Your task to perform on an android device: turn off notifications settings in the gmail app Image 0: 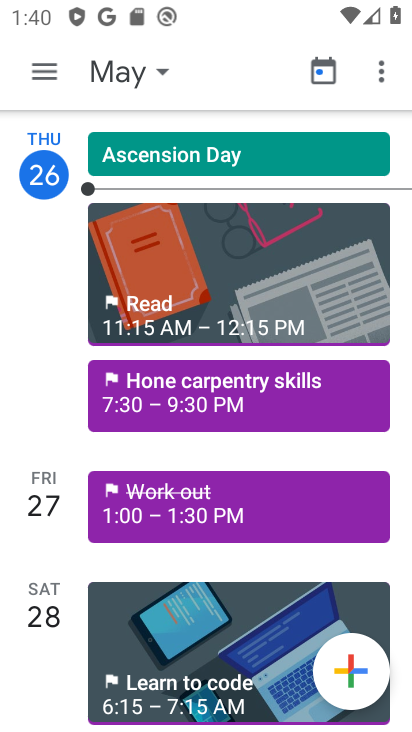
Step 0: press home button
Your task to perform on an android device: turn off notifications settings in the gmail app Image 1: 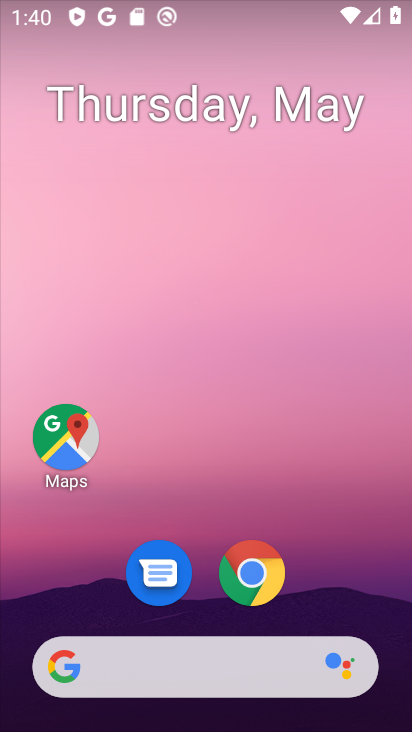
Step 1: drag from (328, 586) to (358, 351)
Your task to perform on an android device: turn off notifications settings in the gmail app Image 2: 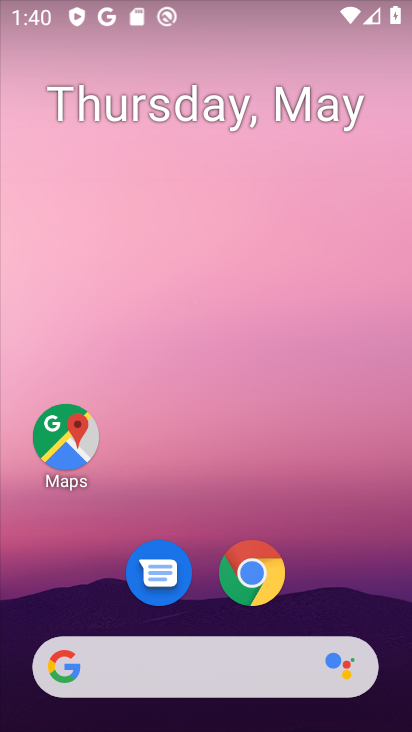
Step 2: drag from (351, 497) to (335, 162)
Your task to perform on an android device: turn off notifications settings in the gmail app Image 3: 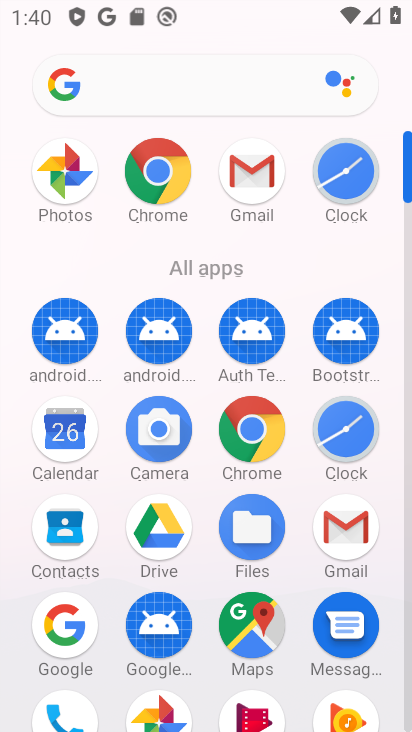
Step 3: click (263, 168)
Your task to perform on an android device: turn off notifications settings in the gmail app Image 4: 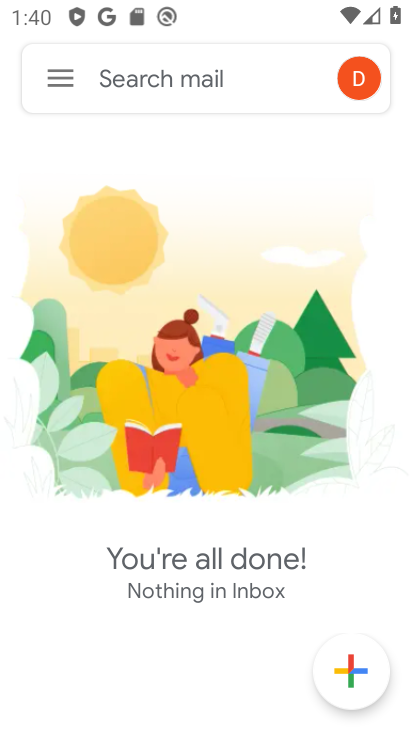
Step 4: click (68, 75)
Your task to perform on an android device: turn off notifications settings in the gmail app Image 5: 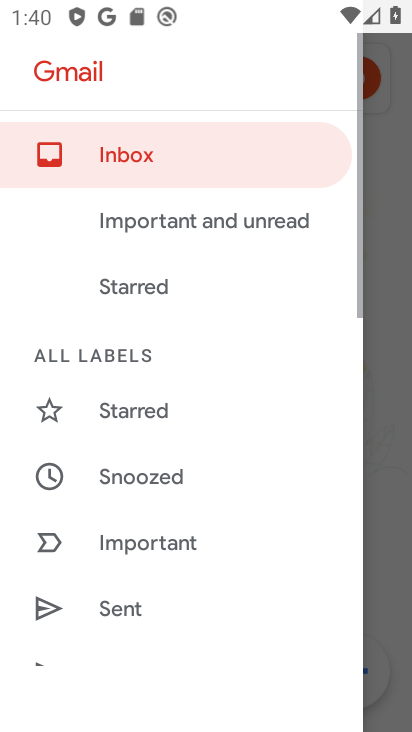
Step 5: drag from (143, 598) to (192, 237)
Your task to perform on an android device: turn off notifications settings in the gmail app Image 6: 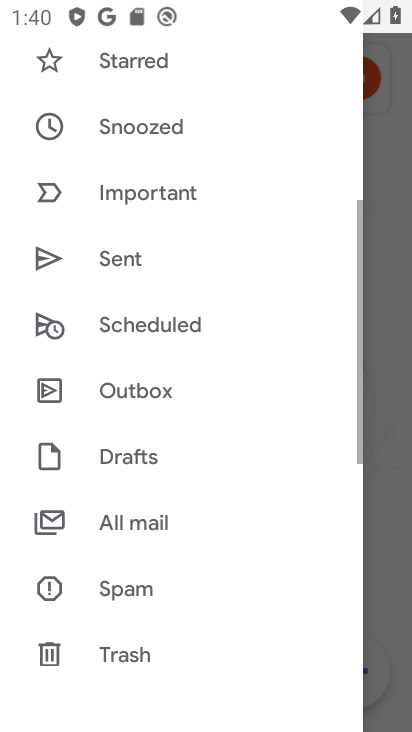
Step 6: drag from (244, 648) to (235, 340)
Your task to perform on an android device: turn off notifications settings in the gmail app Image 7: 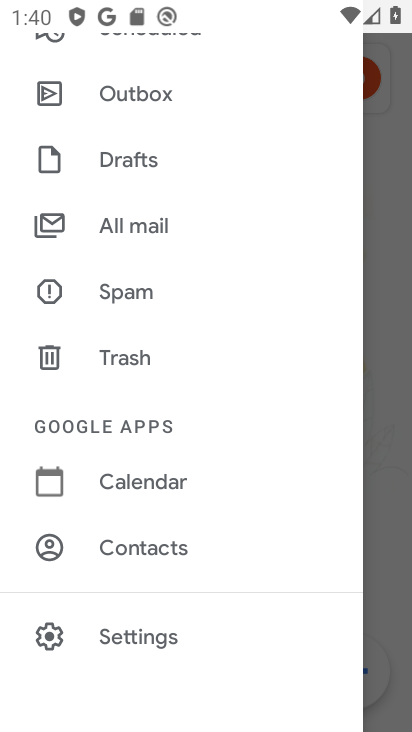
Step 7: click (182, 613)
Your task to perform on an android device: turn off notifications settings in the gmail app Image 8: 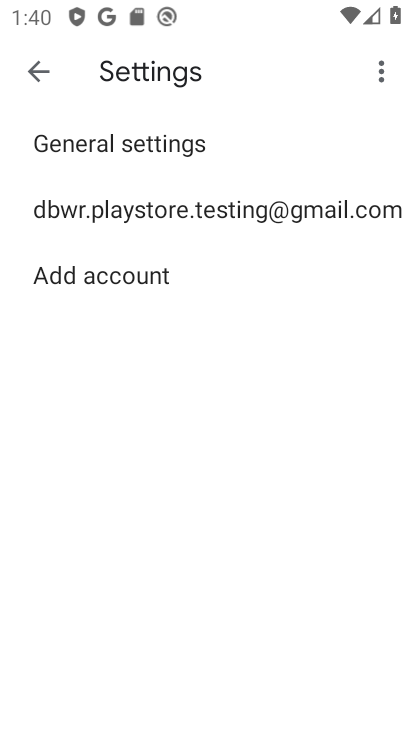
Step 8: click (173, 219)
Your task to perform on an android device: turn off notifications settings in the gmail app Image 9: 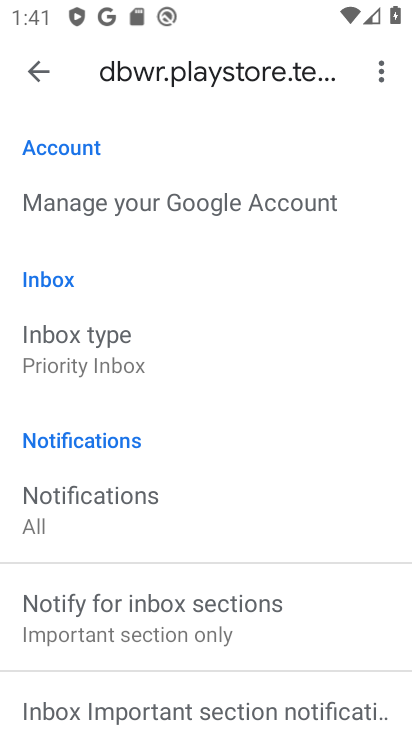
Step 9: click (71, 521)
Your task to perform on an android device: turn off notifications settings in the gmail app Image 10: 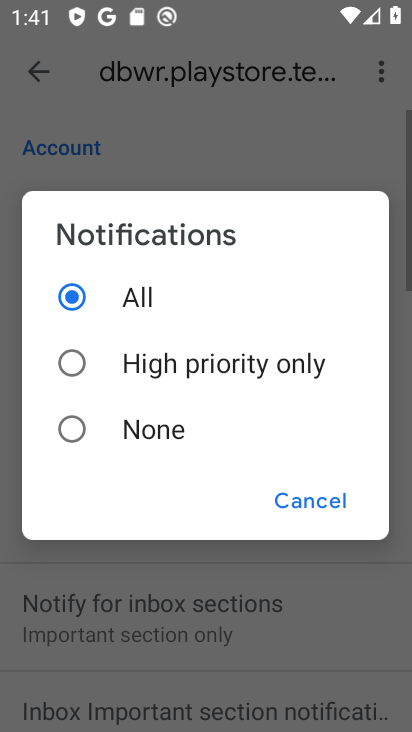
Step 10: click (119, 424)
Your task to perform on an android device: turn off notifications settings in the gmail app Image 11: 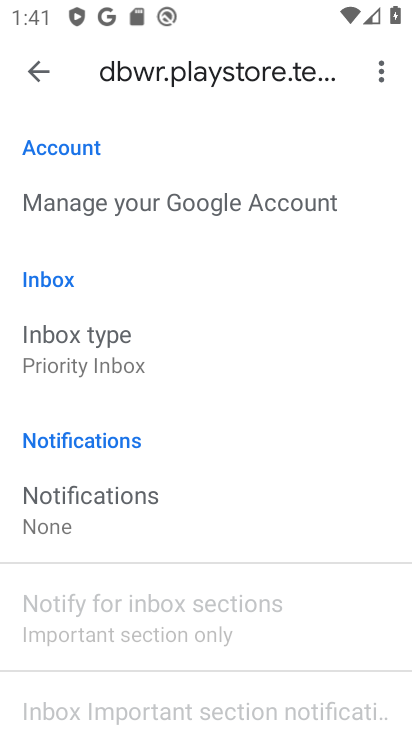
Step 11: task complete